Your task to perform on an android device: When is my next meeting? Image 0: 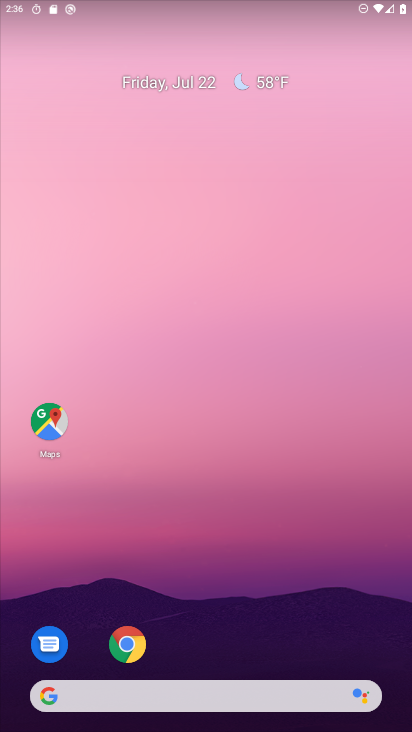
Step 0: drag from (207, 657) to (201, 213)
Your task to perform on an android device: When is my next meeting? Image 1: 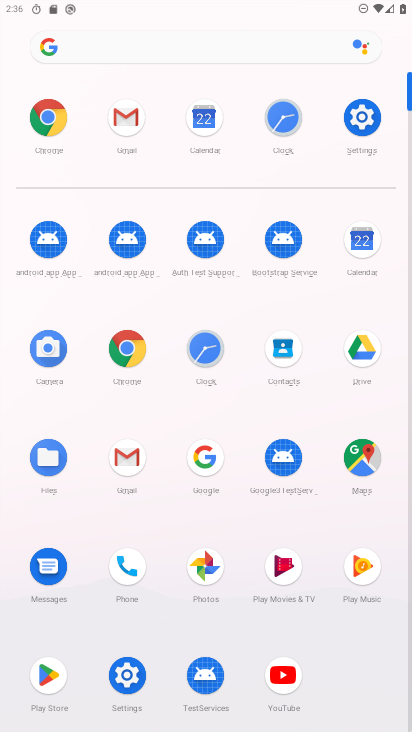
Step 1: click (352, 266)
Your task to perform on an android device: When is my next meeting? Image 2: 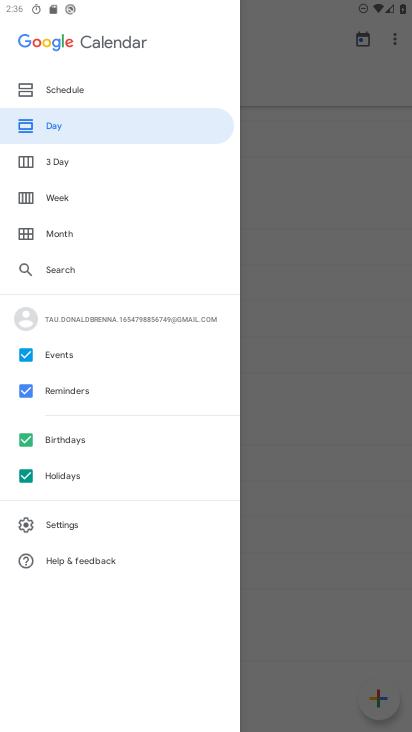
Step 2: click (102, 99)
Your task to perform on an android device: When is my next meeting? Image 3: 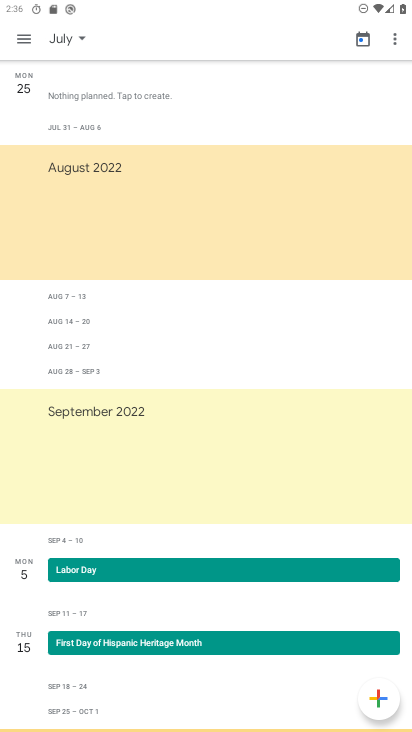
Step 3: click (77, 40)
Your task to perform on an android device: When is my next meeting? Image 4: 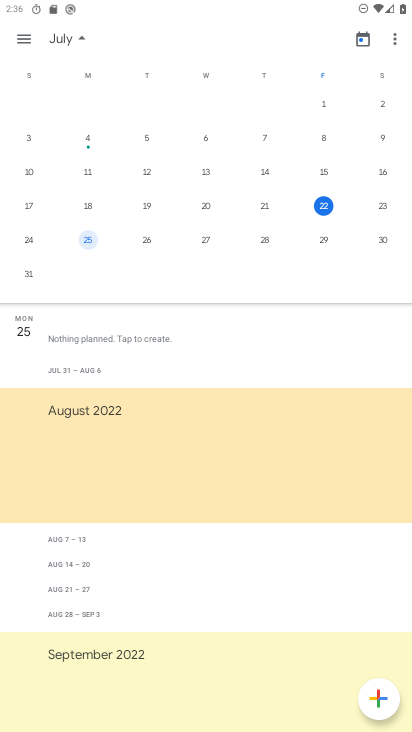
Step 4: click (104, 238)
Your task to perform on an android device: When is my next meeting? Image 5: 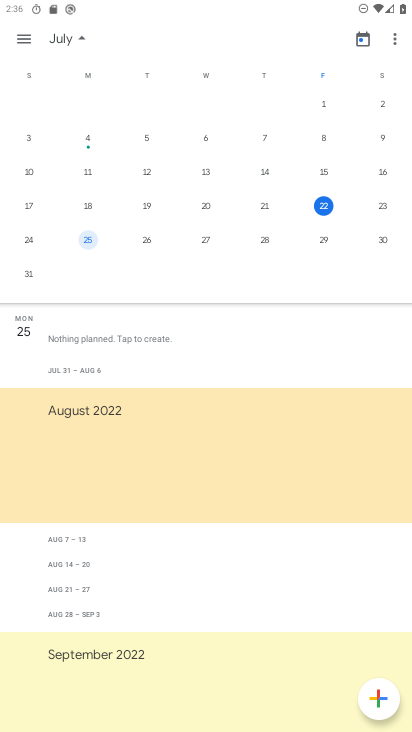
Step 5: click (145, 247)
Your task to perform on an android device: When is my next meeting? Image 6: 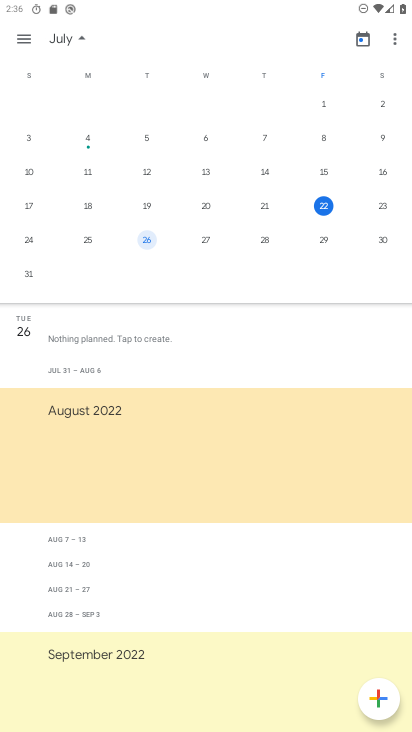
Step 6: click (219, 249)
Your task to perform on an android device: When is my next meeting? Image 7: 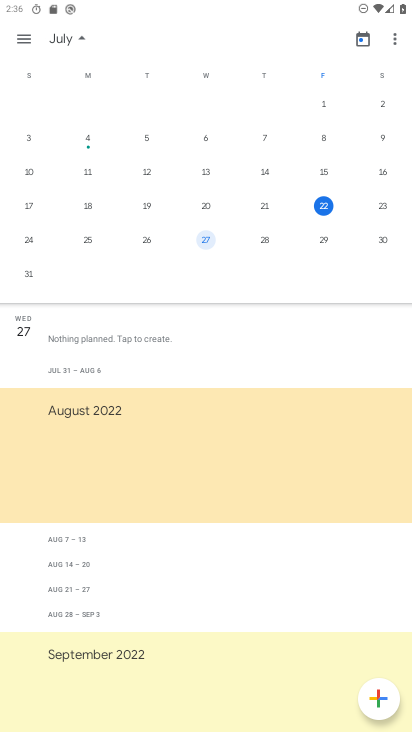
Step 7: task complete